Your task to perform on an android device: Go to Maps Image 0: 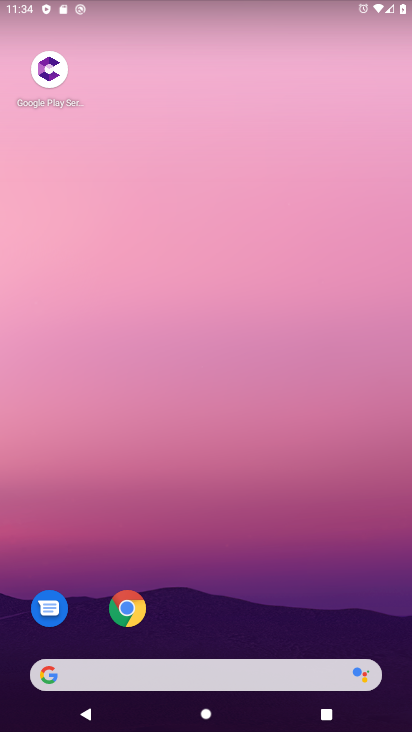
Step 0: drag from (222, 718) to (288, 30)
Your task to perform on an android device: Go to Maps Image 1: 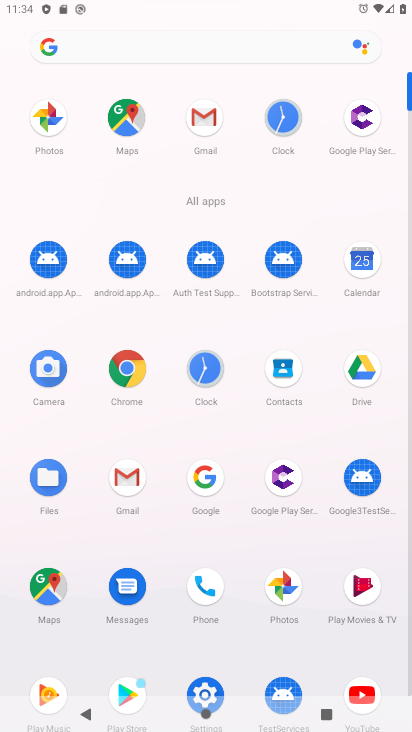
Step 1: click (48, 583)
Your task to perform on an android device: Go to Maps Image 2: 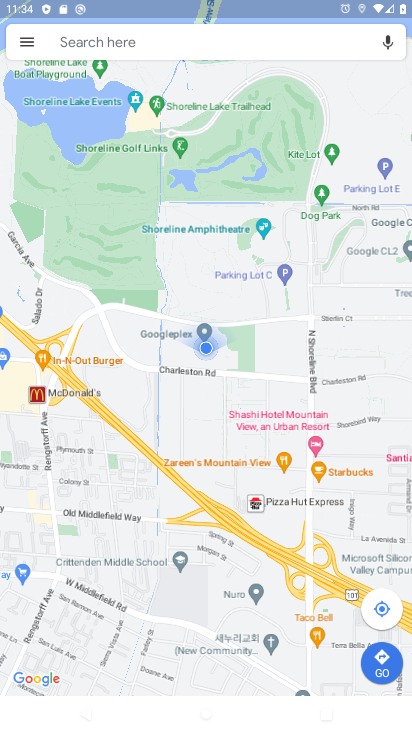
Step 2: task complete